Your task to perform on an android device: Do I have any events today? Image 0: 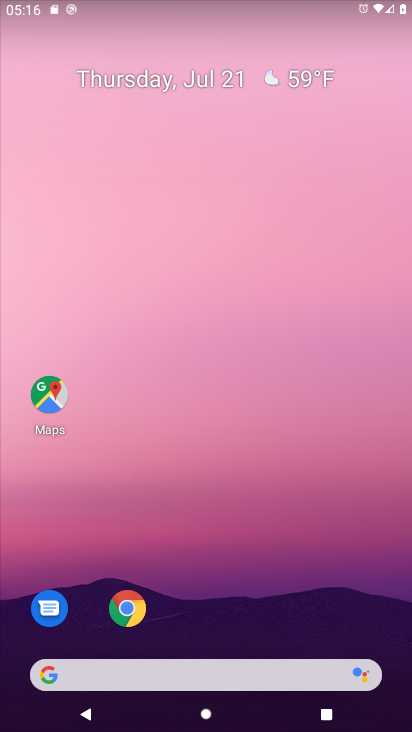
Step 0: drag from (229, 662) to (181, 95)
Your task to perform on an android device: Do I have any events today? Image 1: 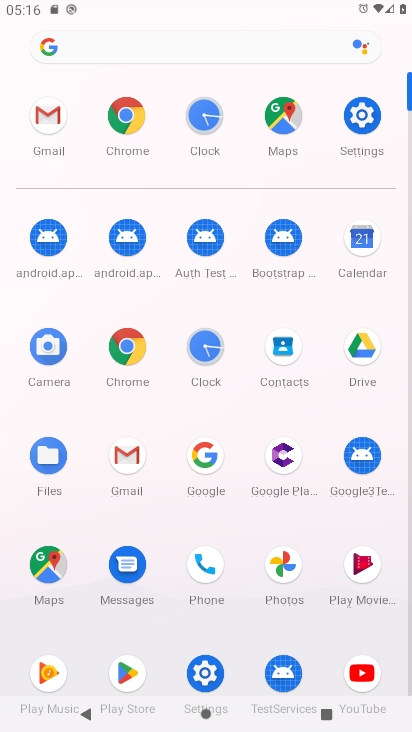
Step 1: click (349, 235)
Your task to perform on an android device: Do I have any events today? Image 2: 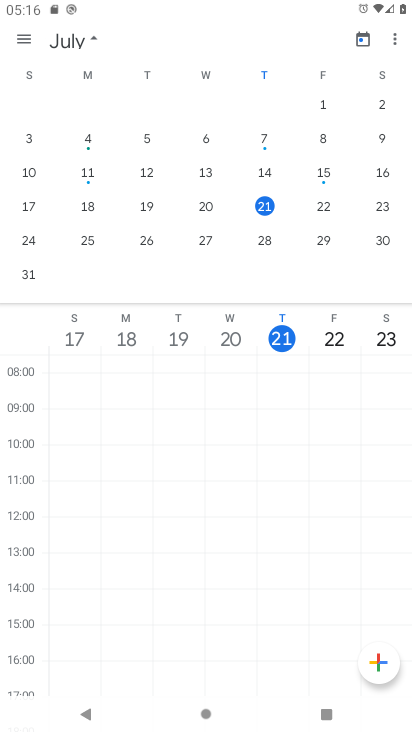
Step 2: click (263, 212)
Your task to perform on an android device: Do I have any events today? Image 3: 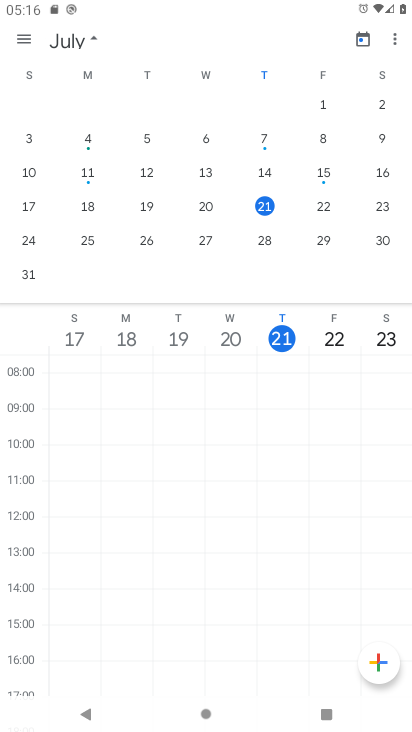
Step 3: task complete